Your task to perform on an android device: turn off location history Image 0: 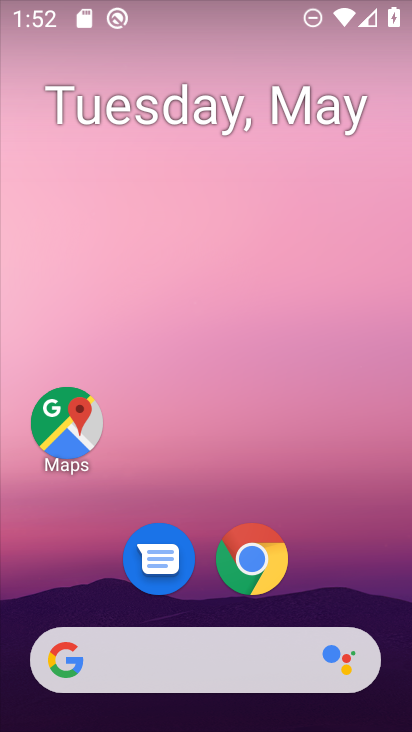
Step 0: drag from (392, 634) to (285, 79)
Your task to perform on an android device: turn off location history Image 1: 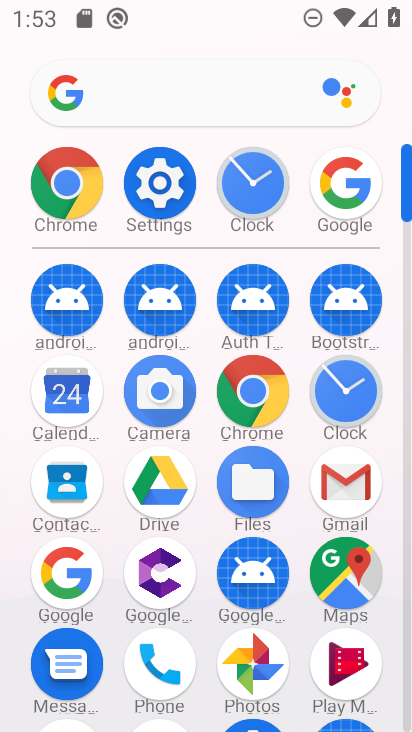
Step 1: click (176, 191)
Your task to perform on an android device: turn off location history Image 2: 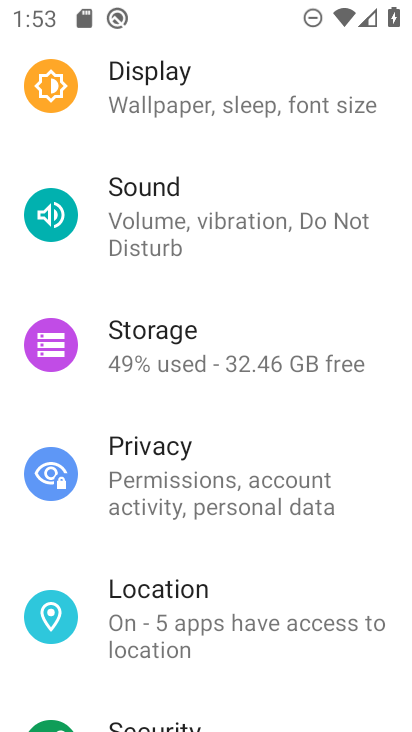
Step 2: click (196, 633)
Your task to perform on an android device: turn off location history Image 3: 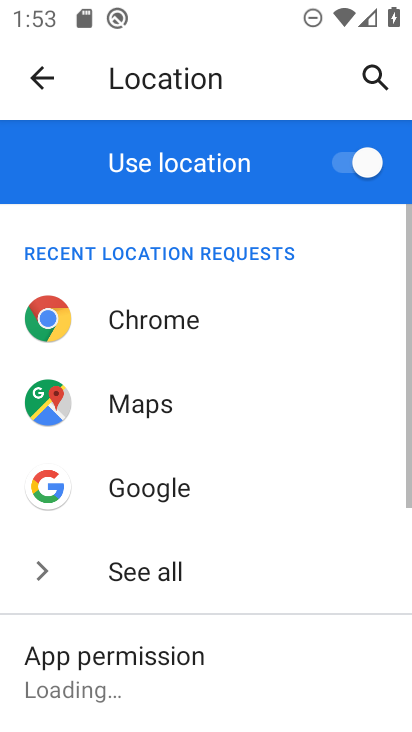
Step 3: drag from (187, 628) to (222, 203)
Your task to perform on an android device: turn off location history Image 4: 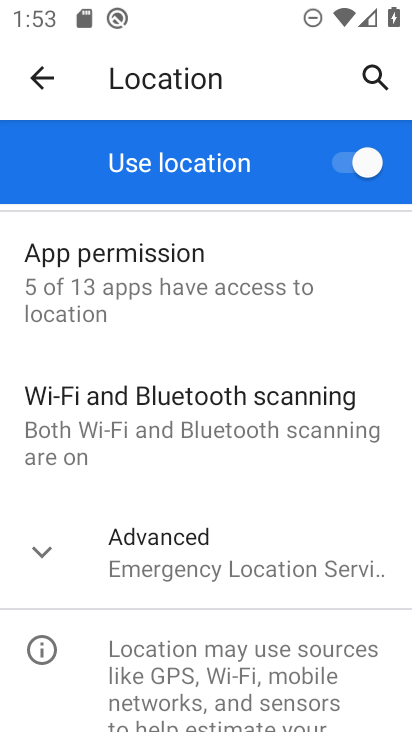
Step 4: click (265, 560)
Your task to perform on an android device: turn off location history Image 5: 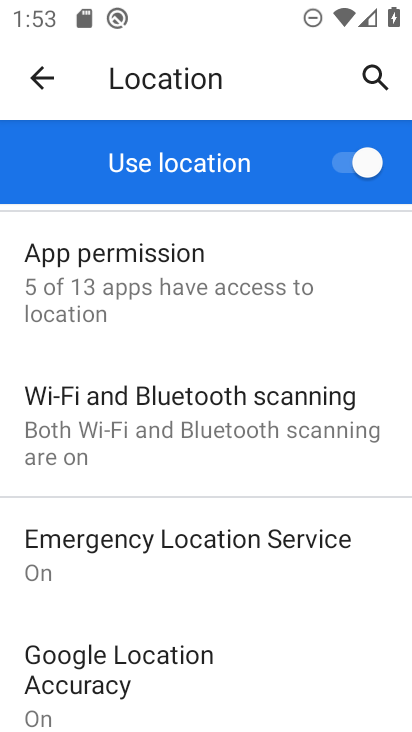
Step 5: drag from (203, 652) to (225, 275)
Your task to perform on an android device: turn off location history Image 6: 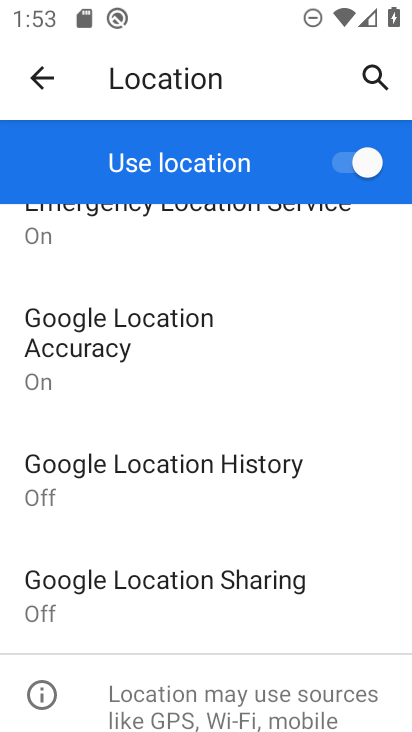
Step 6: click (183, 488)
Your task to perform on an android device: turn off location history Image 7: 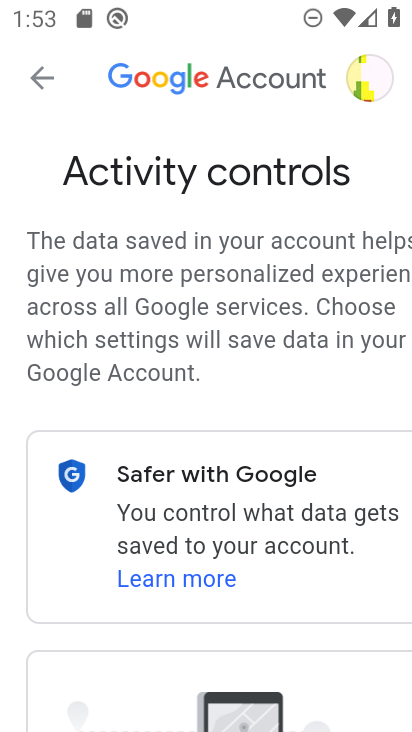
Step 7: drag from (303, 580) to (248, 134)
Your task to perform on an android device: turn off location history Image 8: 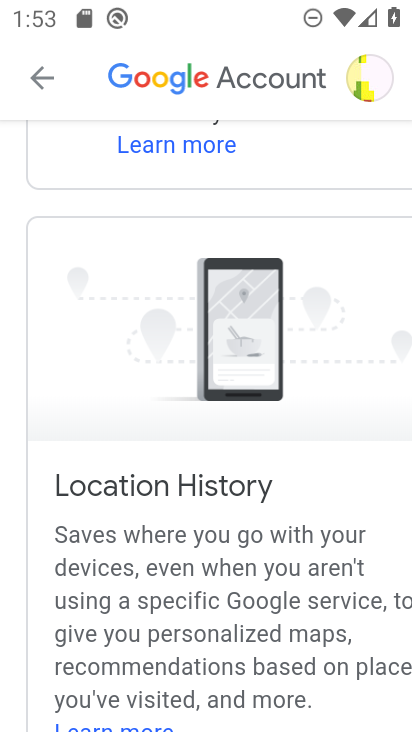
Step 8: drag from (284, 607) to (215, 212)
Your task to perform on an android device: turn off location history Image 9: 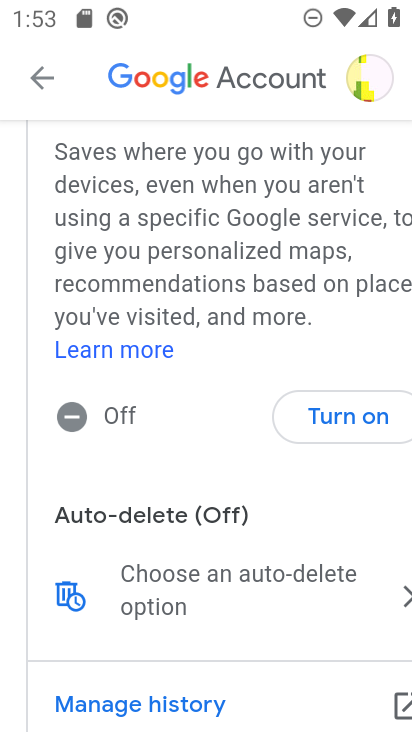
Step 9: click (312, 421)
Your task to perform on an android device: turn off location history Image 10: 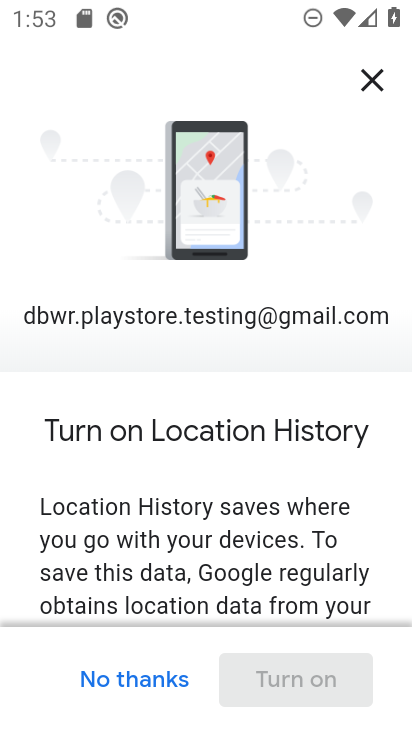
Step 10: task complete